Your task to perform on an android device: Open calendar and show me the third week of next month Image 0: 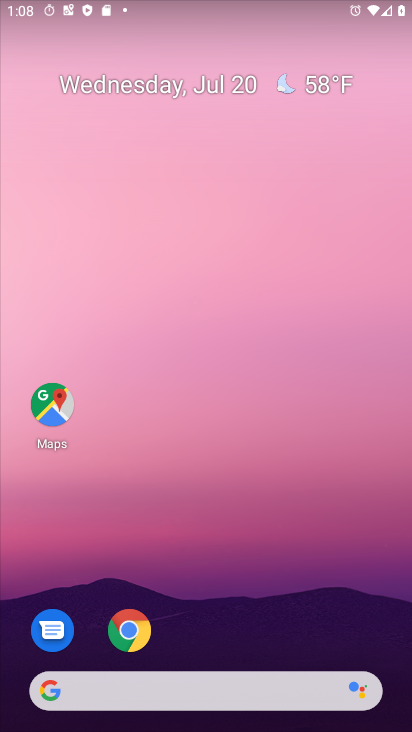
Step 0: press home button
Your task to perform on an android device: Open calendar and show me the third week of next month Image 1: 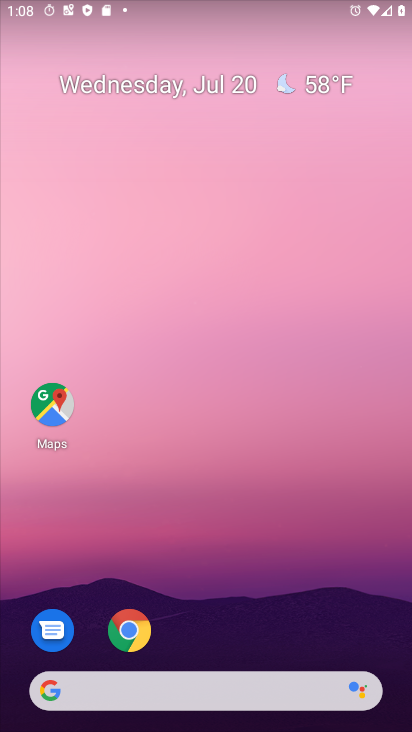
Step 1: drag from (205, 695) to (306, 106)
Your task to perform on an android device: Open calendar and show me the third week of next month Image 2: 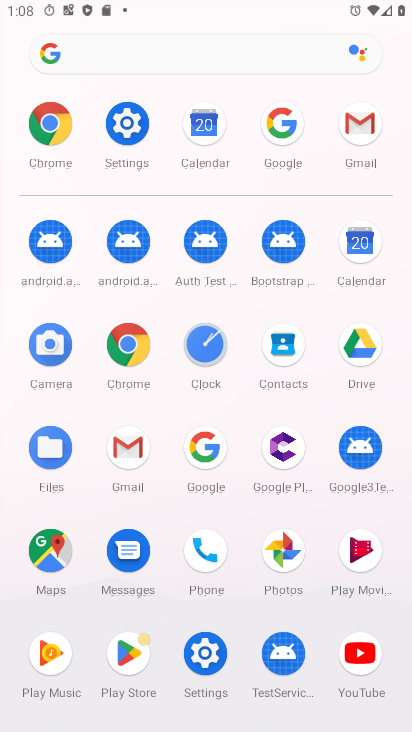
Step 2: click (209, 133)
Your task to perform on an android device: Open calendar and show me the third week of next month Image 3: 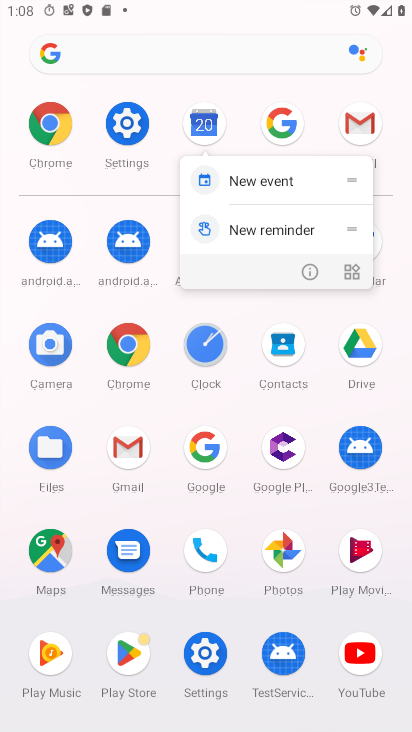
Step 3: click (201, 127)
Your task to perform on an android device: Open calendar and show me the third week of next month Image 4: 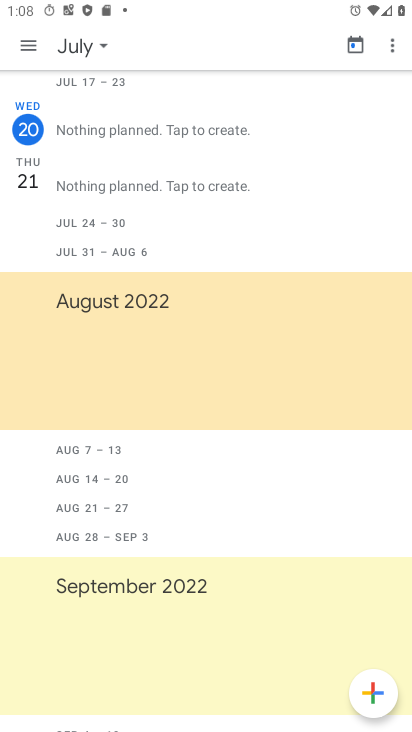
Step 4: click (74, 44)
Your task to perform on an android device: Open calendar and show me the third week of next month Image 5: 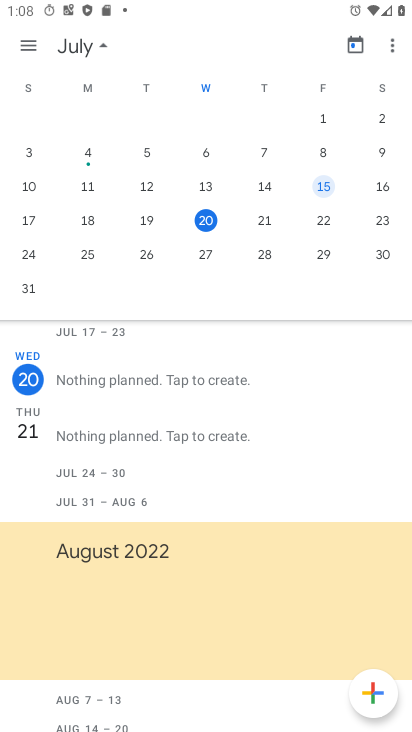
Step 5: drag from (355, 155) to (35, 182)
Your task to perform on an android device: Open calendar and show me the third week of next month Image 6: 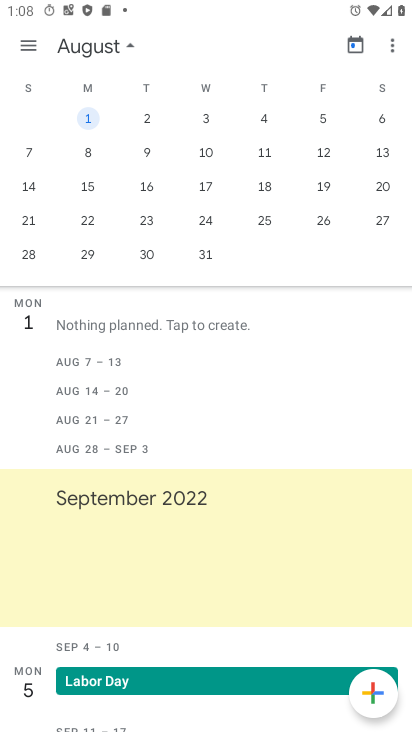
Step 6: click (28, 219)
Your task to perform on an android device: Open calendar and show me the third week of next month Image 7: 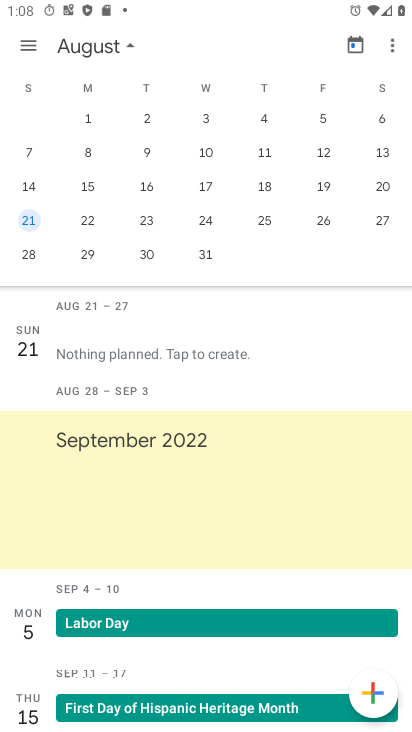
Step 7: click (28, 182)
Your task to perform on an android device: Open calendar and show me the third week of next month Image 8: 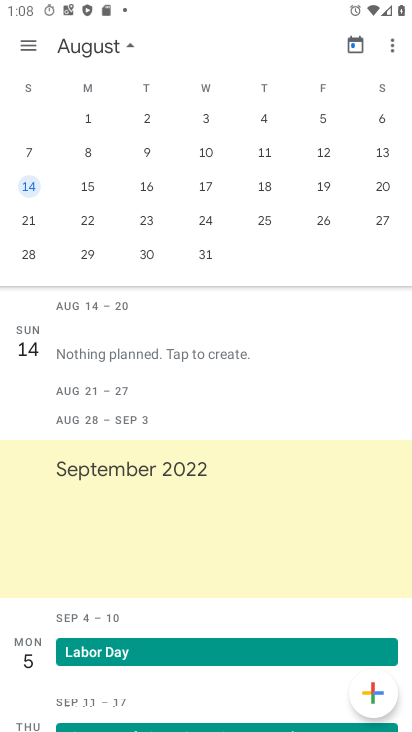
Step 8: click (26, 44)
Your task to perform on an android device: Open calendar and show me the third week of next month Image 9: 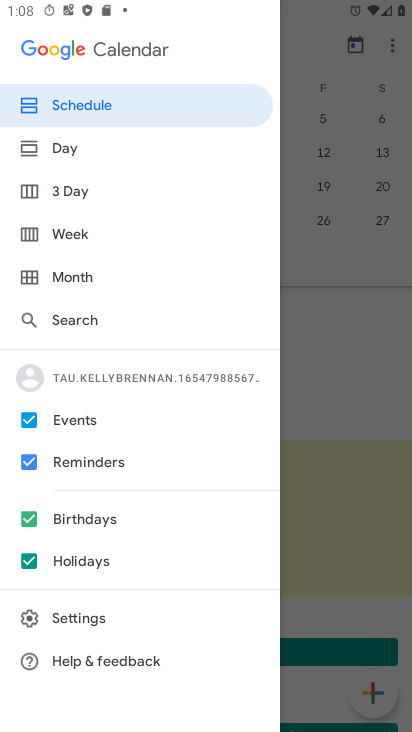
Step 9: click (82, 243)
Your task to perform on an android device: Open calendar and show me the third week of next month Image 10: 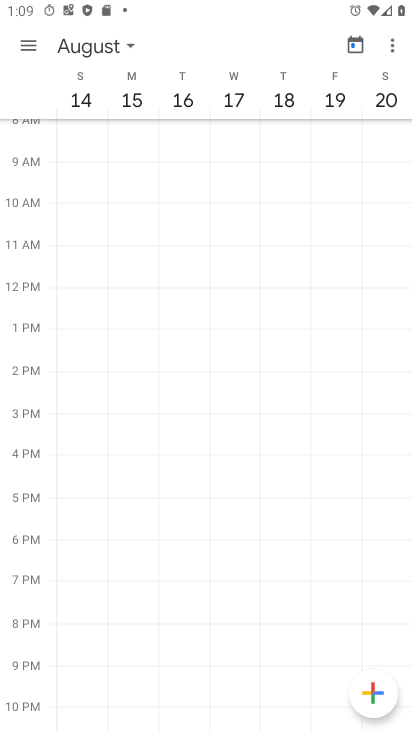
Step 10: task complete